Your task to perform on an android device: toggle show notifications on the lock screen Image 0: 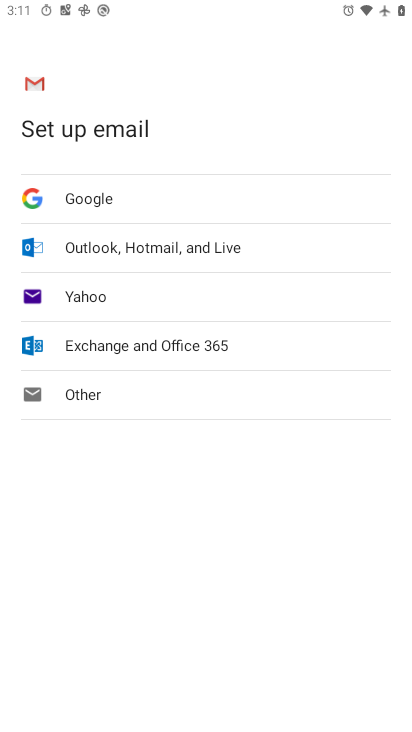
Step 0: press home button
Your task to perform on an android device: toggle show notifications on the lock screen Image 1: 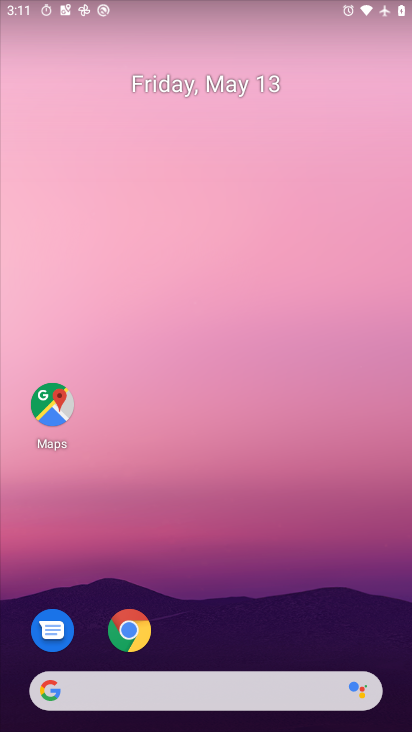
Step 1: drag from (230, 614) to (228, 287)
Your task to perform on an android device: toggle show notifications on the lock screen Image 2: 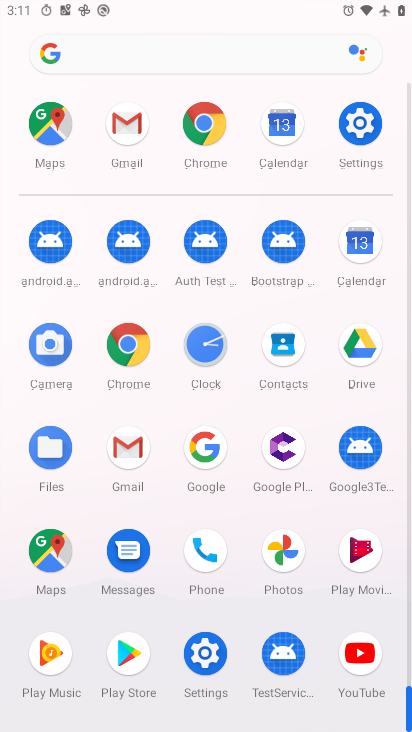
Step 2: click (200, 656)
Your task to perform on an android device: toggle show notifications on the lock screen Image 3: 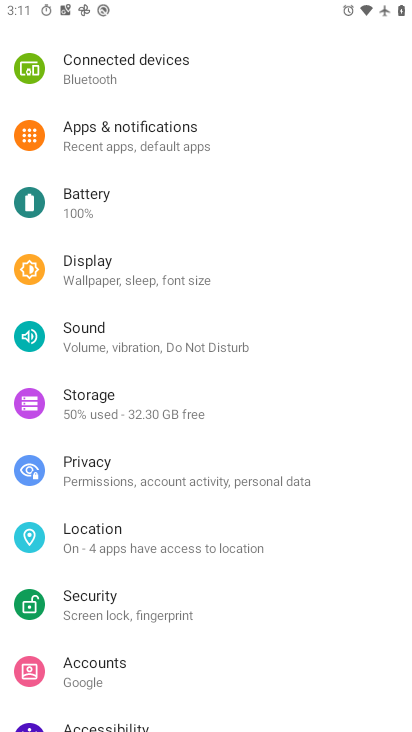
Step 3: click (208, 159)
Your task to perform on an android device: toggle show notifications on the lock screen Image 4: 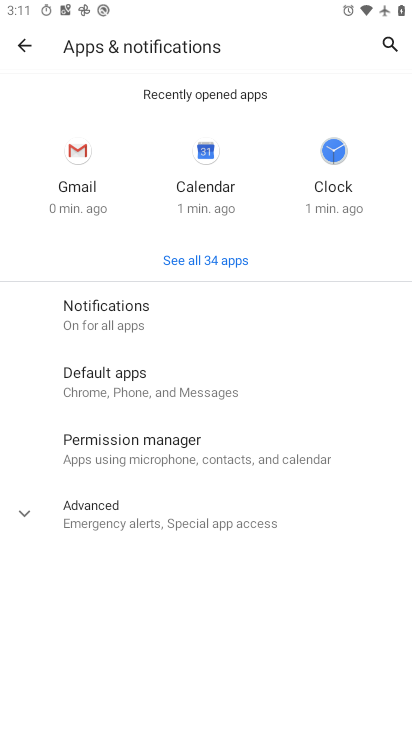
Step 4: click (167, 339)
Your task to perform on an android device: toggle show notifications on the lock screen Image 5: 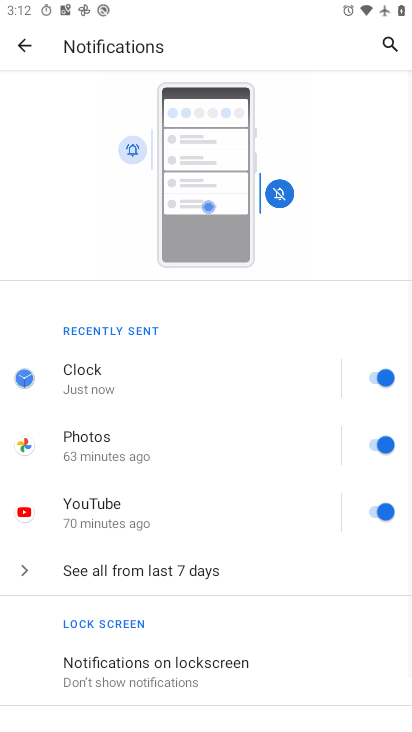
Step 5: click (116, 648)
Your task to perform on an android device: toggle show notifications on the lock screen Image 6: 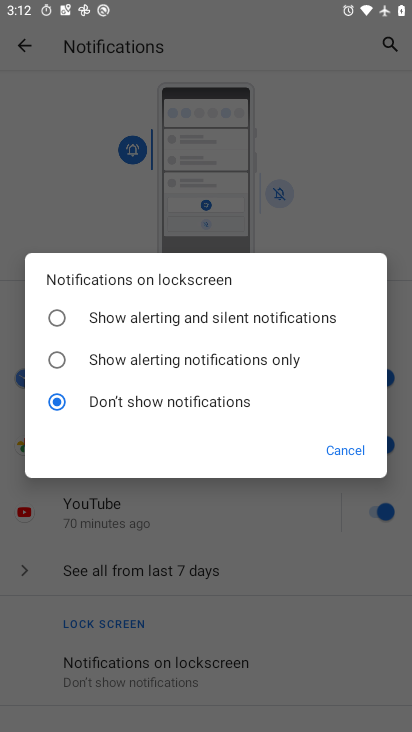
Step 6: click (189, 330)
Your task to perform on an android device: toggle show notifications on the lock screen Image 7: 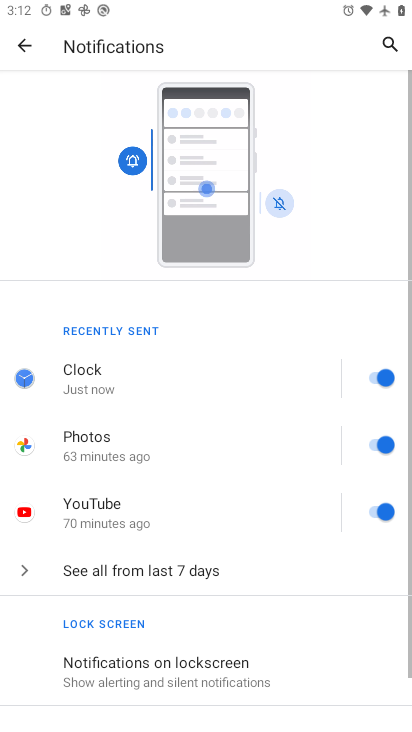
Step 7: task complete